Your task to perform on an android device: Go to location settings Image 0: 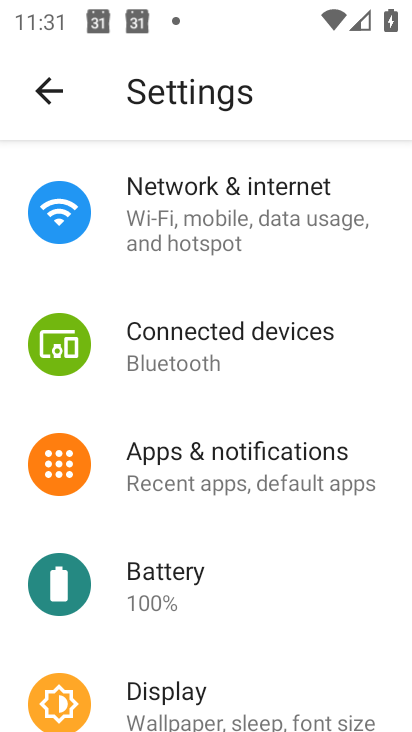
Step 0: drag from (275, 552) to (258, 238)
Your task to perform on an android device: Go to location settings Image 1: 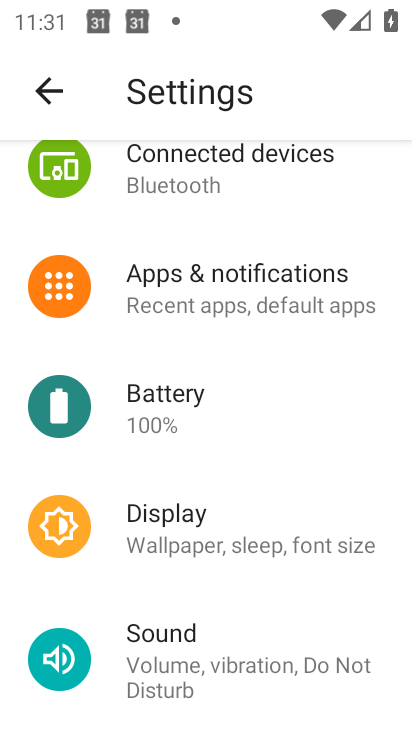
Step 1: drag from (240, 470) to (215, 133)
Your task to perform on an android device: Go to location settings Image 2: 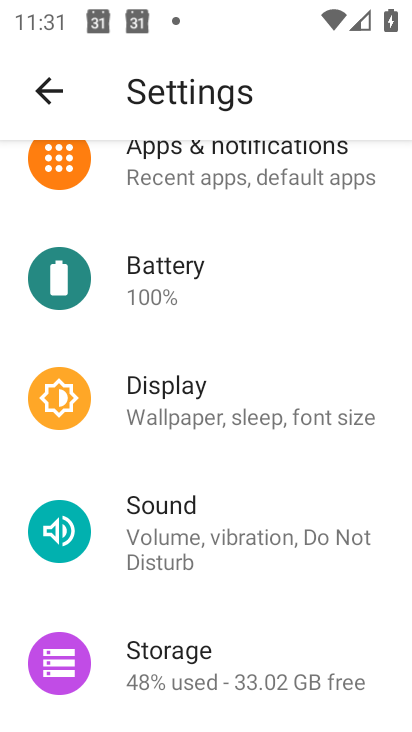
Step 2: drag from (262, 574) to (256, 151)
Your task to perform on an android device: Go to location settings Image 3: 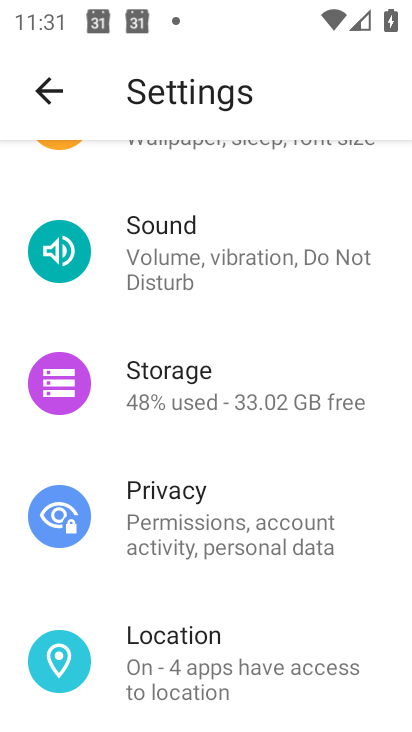
Step 3: click (242, 649)
Your task to perform on an android device: Go to location settings Image 4: 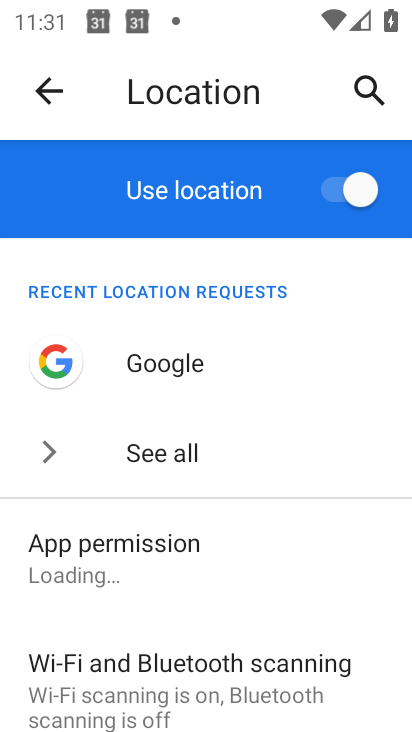
Step 4: drag from (228, 654) to (229, 156)
Your task to perform on an android device: Go to location settings Image 5: 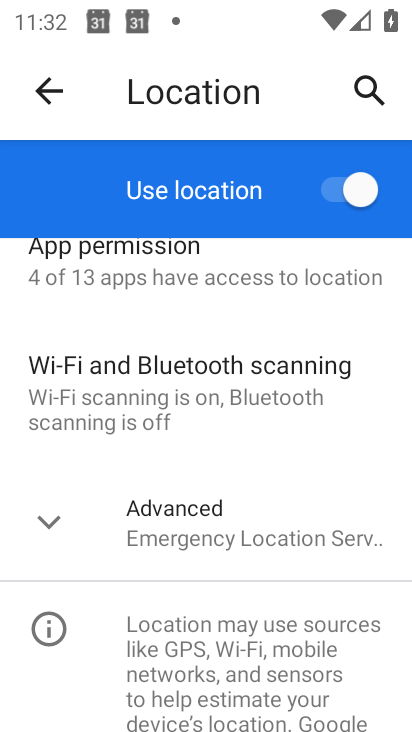
Step 5: click (238, 508)
Your task to perform on an android device: Go to location settings Image 6: 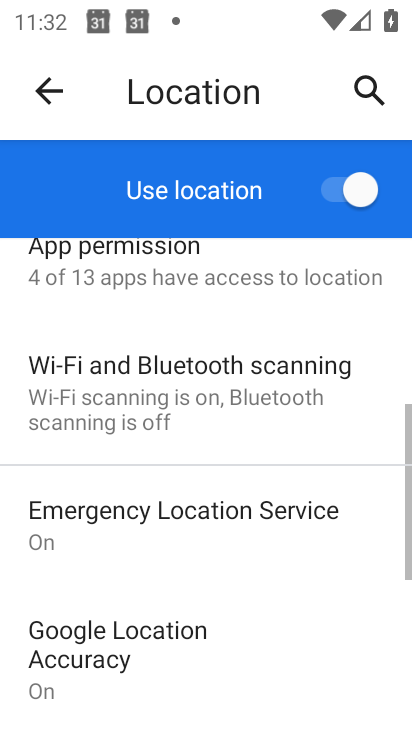
Step 6: task complete